Your task to perform on an android device: turn on javascript in the chrome app Image 0: 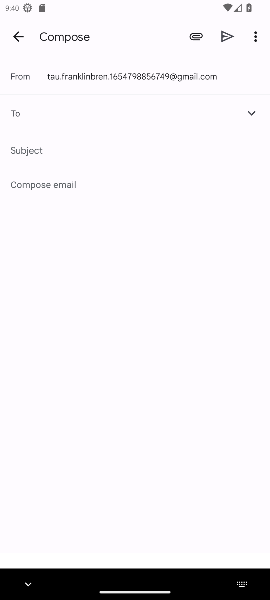
Step 0: press home button
Your task to perform on an android device: turn on javascript in the chrome app Image 1: 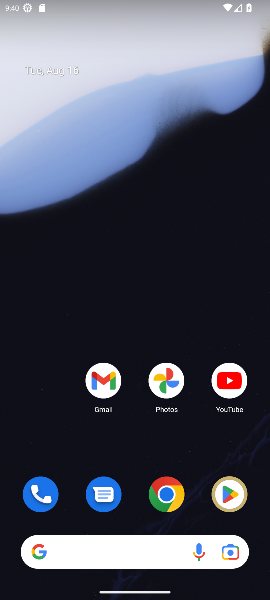
Step 1: drag from (162, 467) to (139, 135)
Your task to perform on an android device: turn on javascript in the chrome app Image 2: 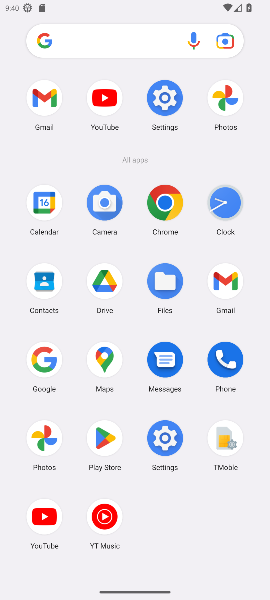
Step 2: click (163, 221)
Your task to perform on an android device: turn on javascript in the chrome app Image 3: 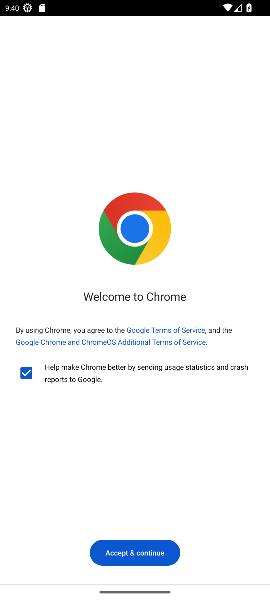
Step 3: click (126, 554)
Your task to perform on an android device: turn on javascript in the chrome app Image 4: 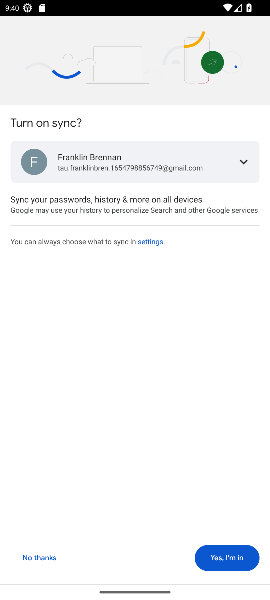
Step 4: click (213, 562)
Your task to perform on an android device: turn on javascript in the chrome app Image 5: 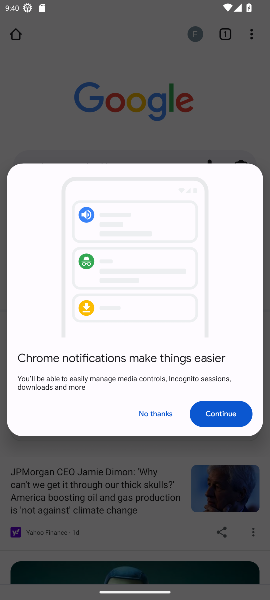
Step 5: click (209, 414)
Your task to perform on an android device: turn on javascript in the chrome app Image 6: 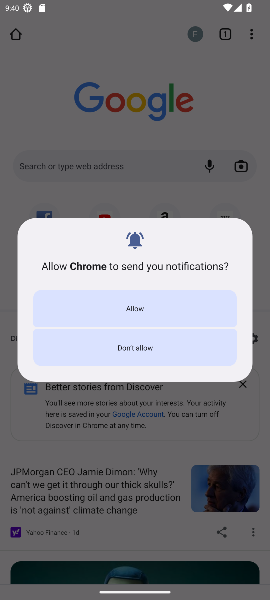
Step 6: click (149, 294)
Your task to perform on an android device: turn on javascript in the chrome app Image 7: 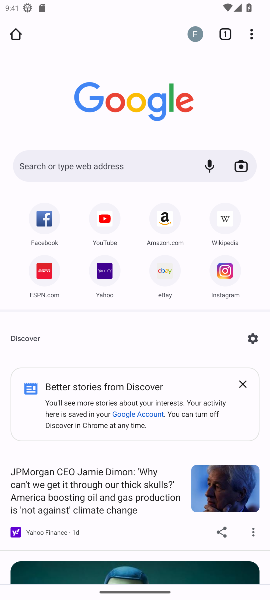
Step 7: drag from (249, 32) to (131, 312)
Your task to perform on an android device: turn on javascript in the chrome app Image 8: 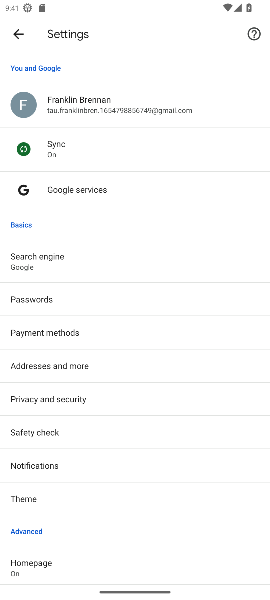
Step 8: drag from (71, 516) to (77, 184)
Your task to perform on an android device: turn on javascript in the chrome app Image 9: 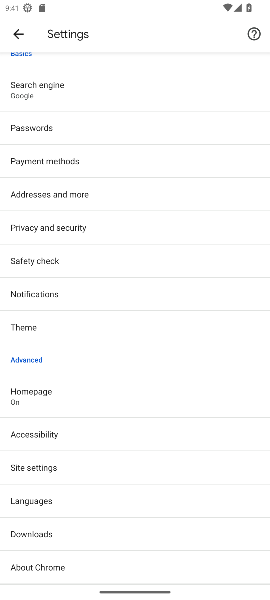
Step 9: click (37, 464)
Your task to perform on an android device: turn on javascript in the chrome app Image 10: 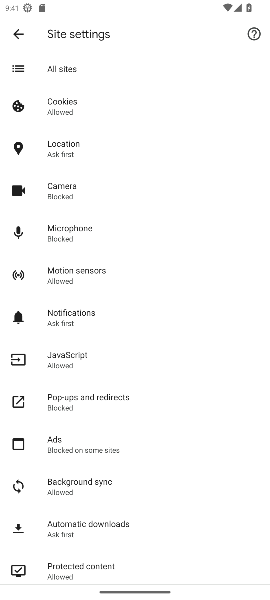
Step 10: click (80, 363)
Your task to perform on an android device: turn on javascript in the chrome app Image 11: 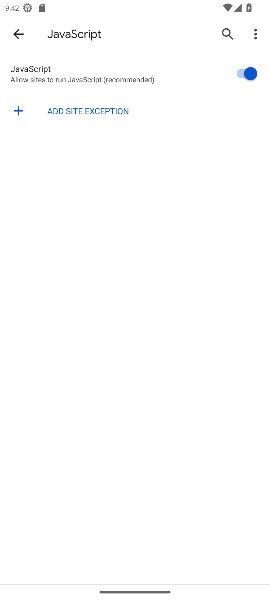
Step 11: task complete